Your task to perform on an android device: Go to calendar. Show me events next week Image 0: 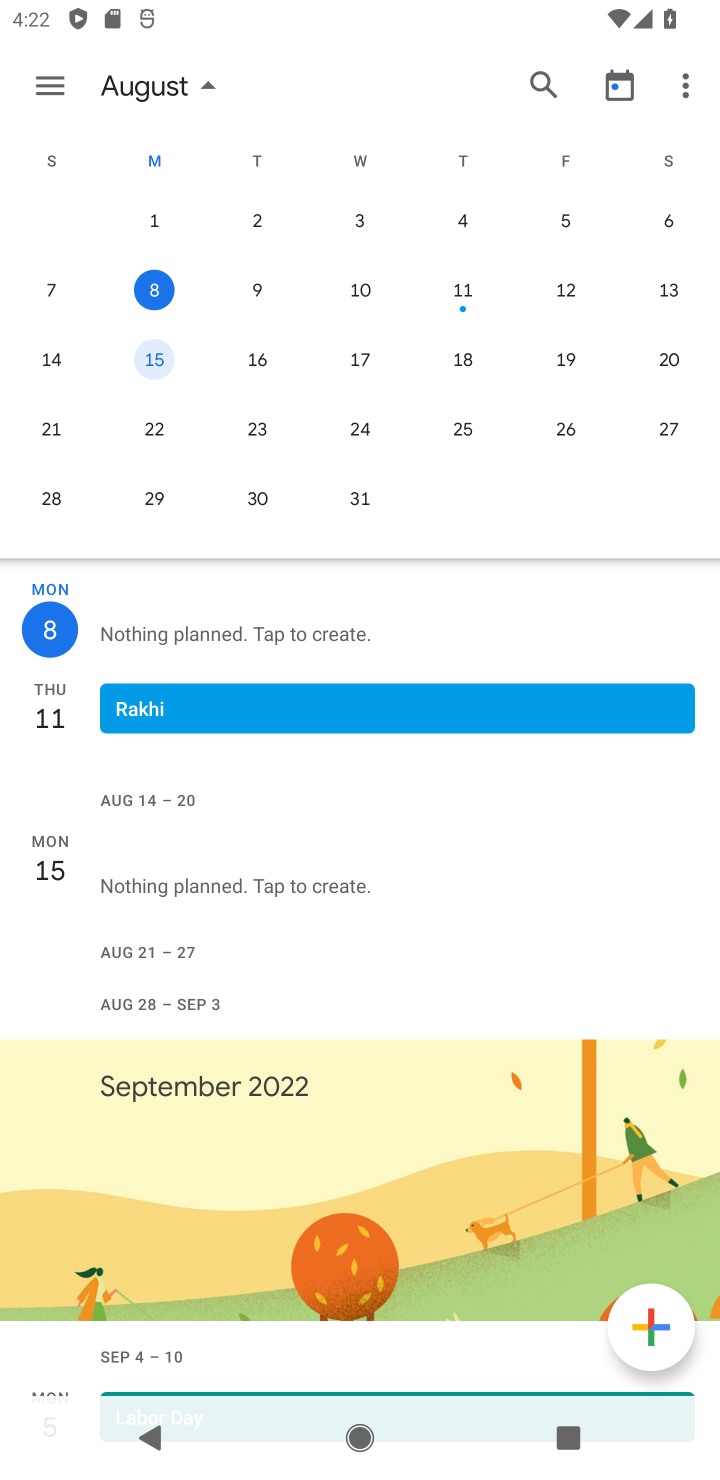
Step 0: click (150, 356)
Your task to perform on an android device: Go to calendar. Show me events next week Image 1: 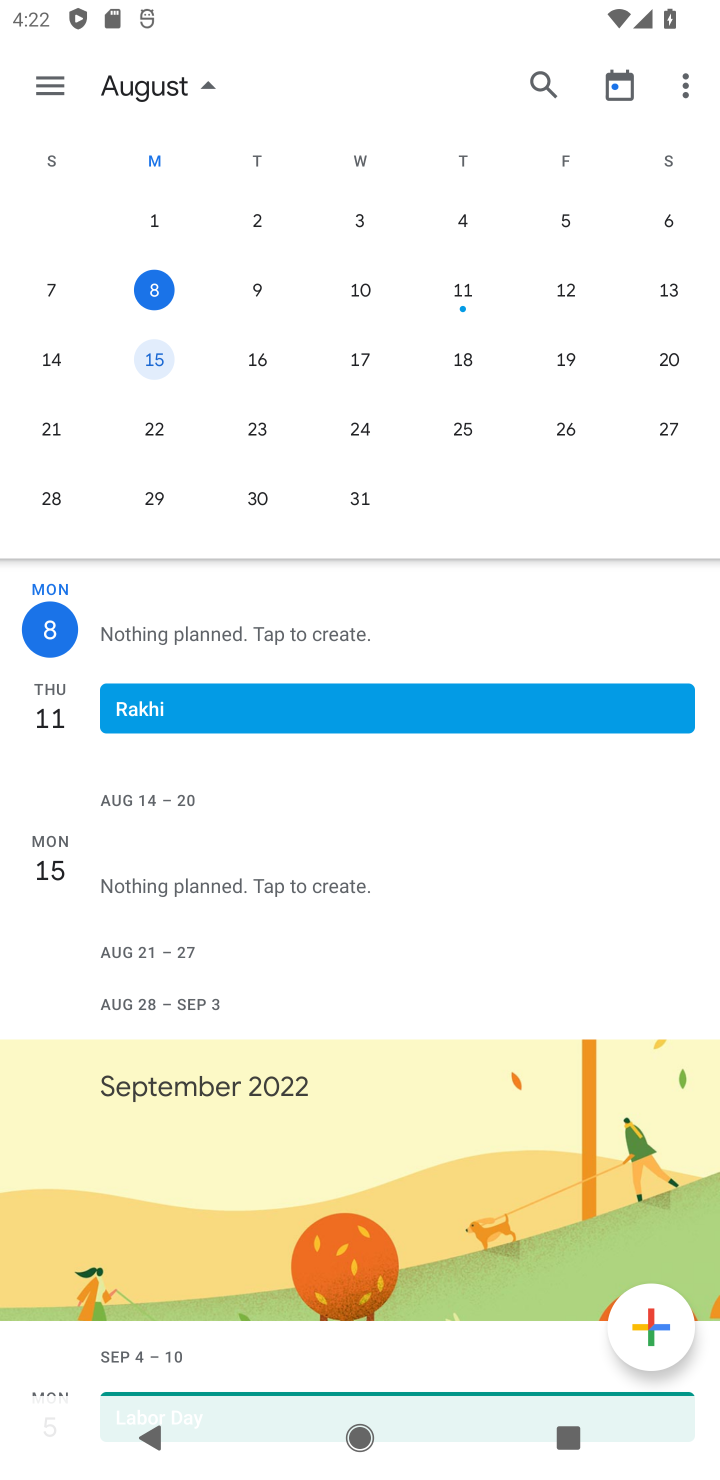
Step 1: click (150, 351)
Your task to perform on an android device: Go to calendar. Show me events next week Image 2: 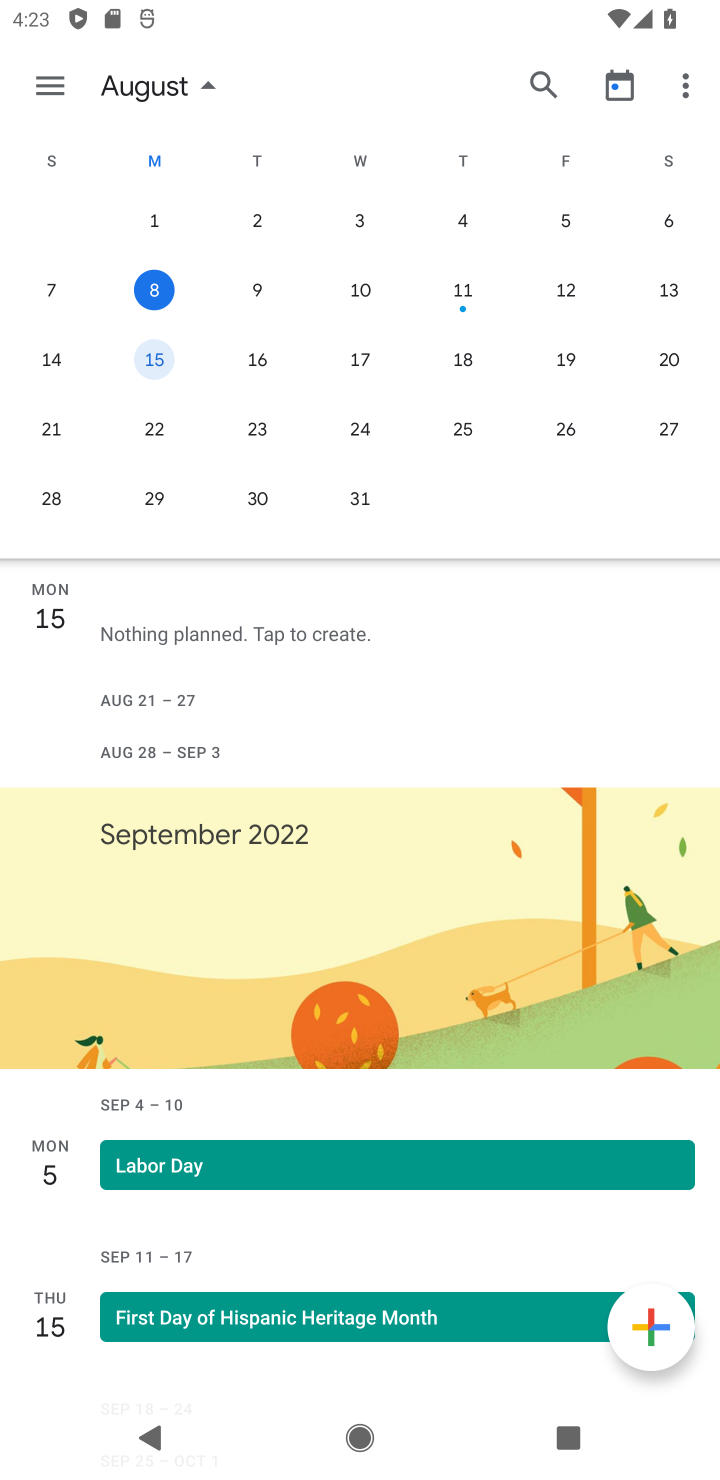
Step 2: click (141, 367)
Your task to perform on an android device: Go to calendar. Show me events next week Image 3: 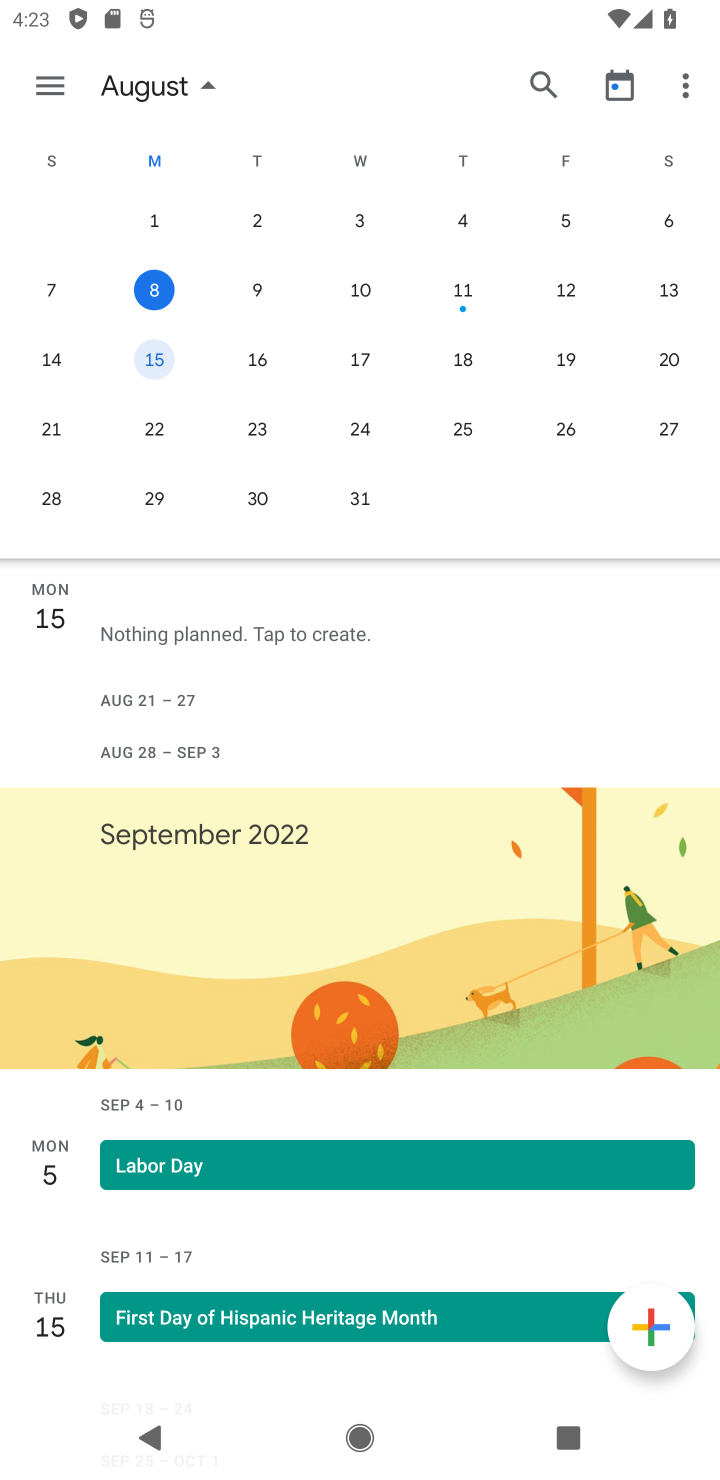
Step 3: click (143, 369)
Your task to perform on an android device: Go to calendar. Show me events next week Image 4: 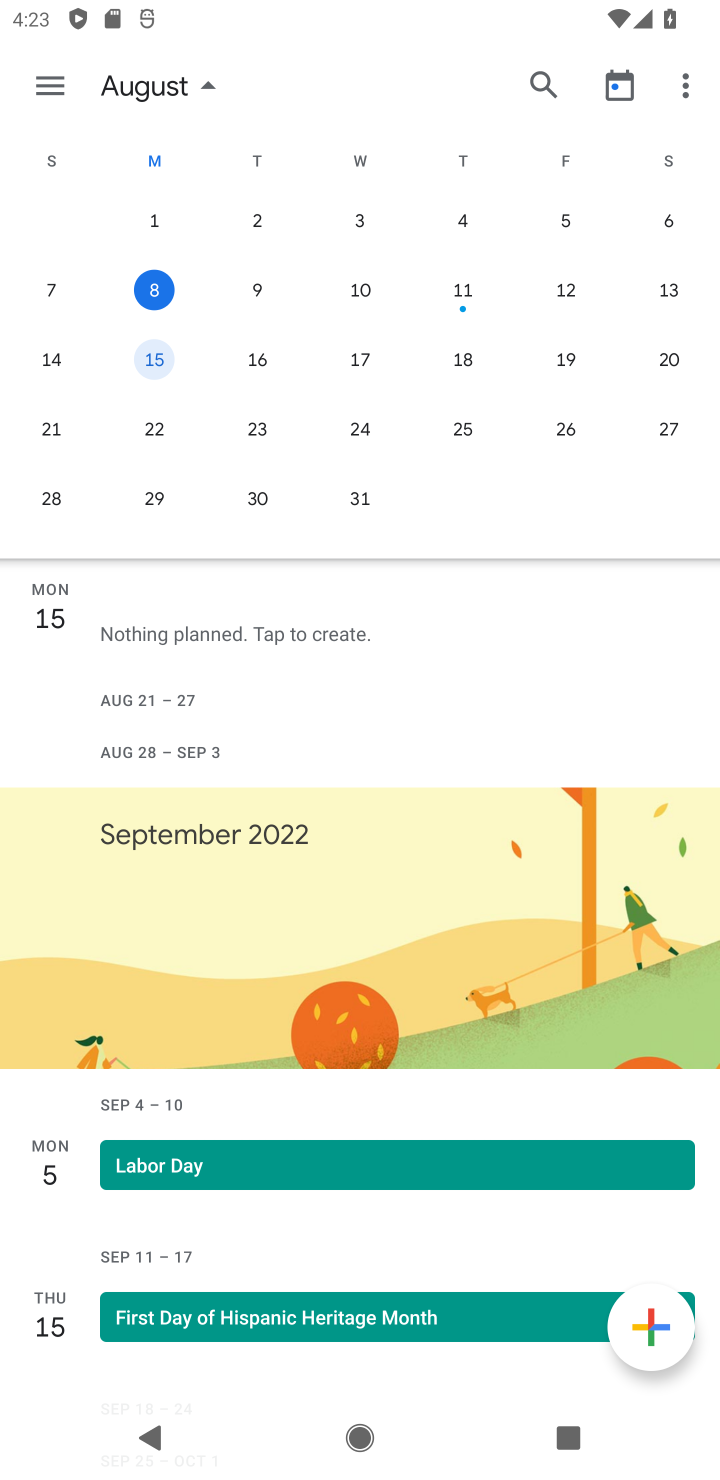
Step 4: task complete